Your task to perform on an android device: Turn off the flashlight Image 0: 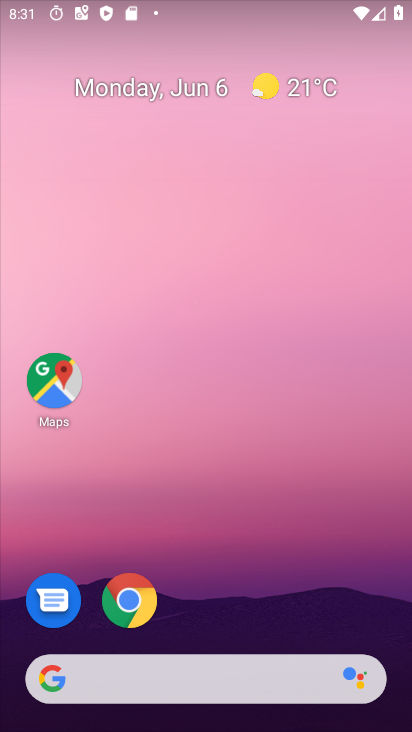
Step 0: drag from (296, 588) to (231, 15)
Your task to perform on an android device: Turn off the flashlight Image 1: 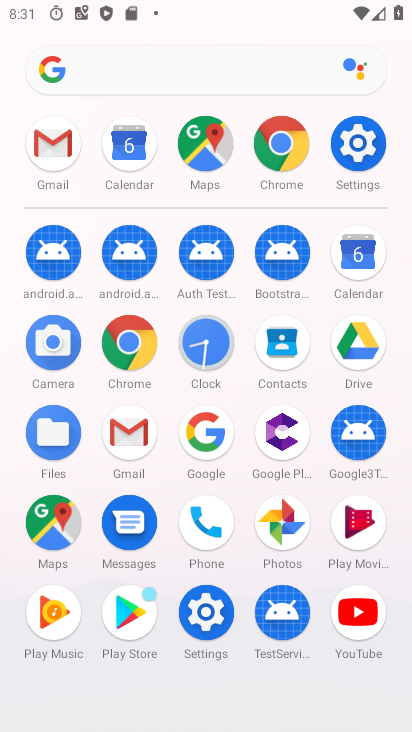
Step 1: drag from (14, 493) to (22, 229)
Your task to perform on an android device: Turn off the flashlight Image 2: 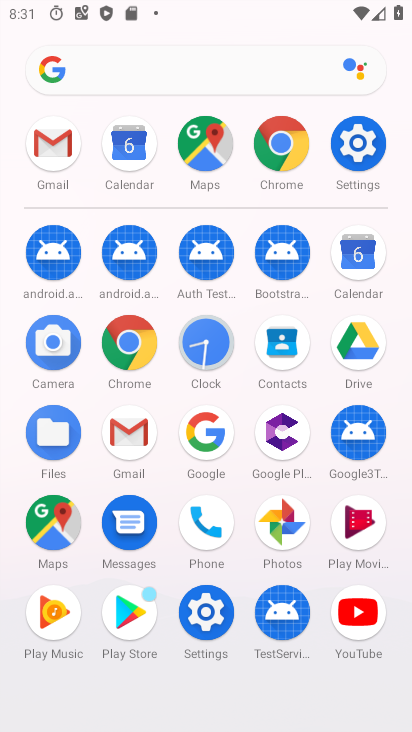
Step 2: click (207, 611)
Your task to perform on an android device: Turn off the flashlight Image 3: 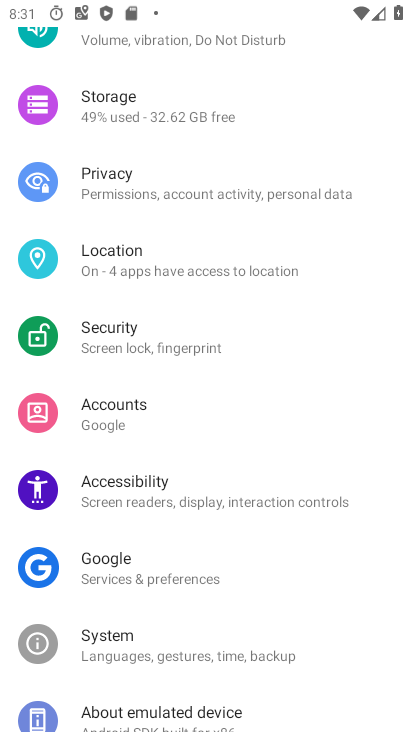
Step 3: drag from (309, 150) to (314, 605)
Your task to perform on an android device: Turn off the flashlight Image 4: 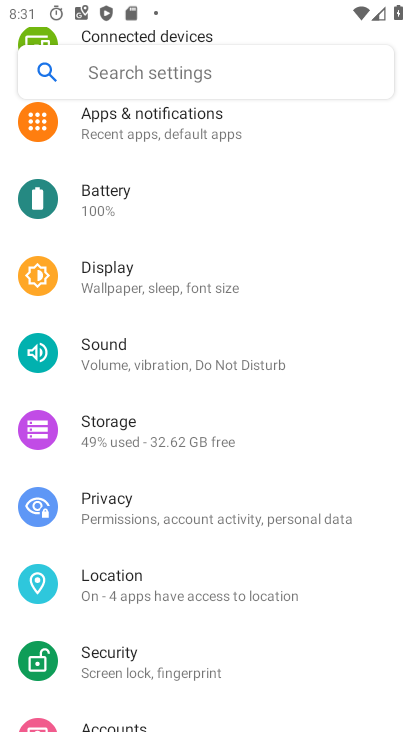
Step 4: drag from (282, 220) to (239, 636)
Your task to perform on an android device: Turn off the flashlight Image 5: 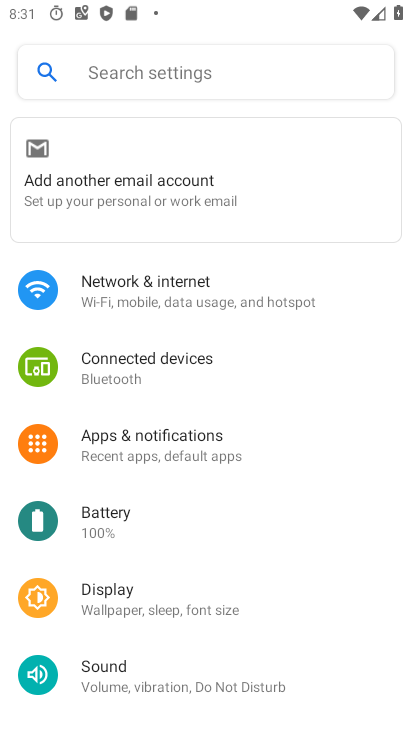
Step 5: click (212, 302)
Your task to perform on an android device: Turn off the flashlight Image 6: 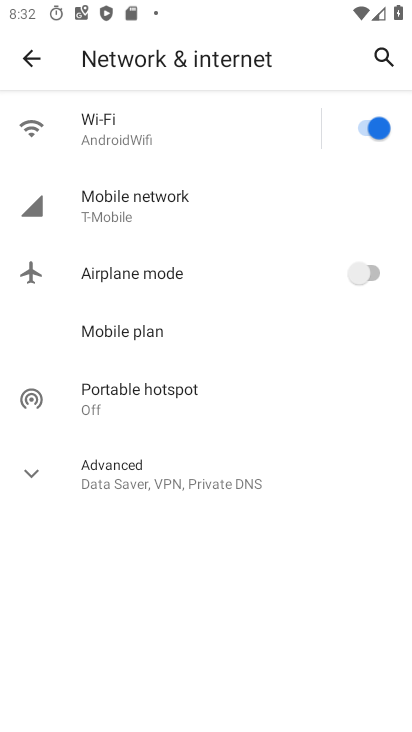
Step 6: click (49, 464)
Your task to perform on an android device: Turn off the flashlight Image 7: 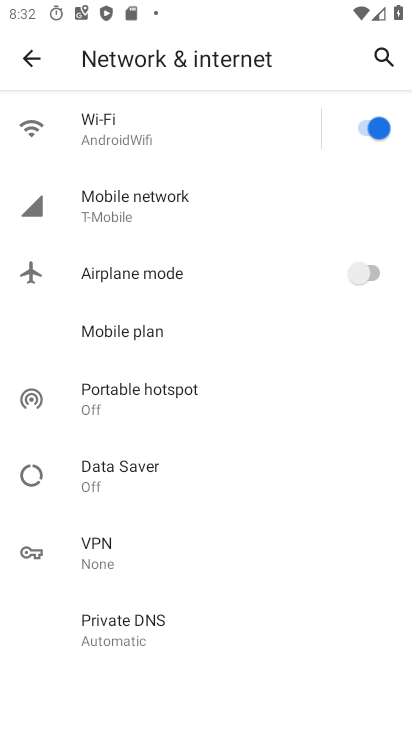
Step 7: task complete